Your task to perform on an android device: Open Reddit.com Image 0: 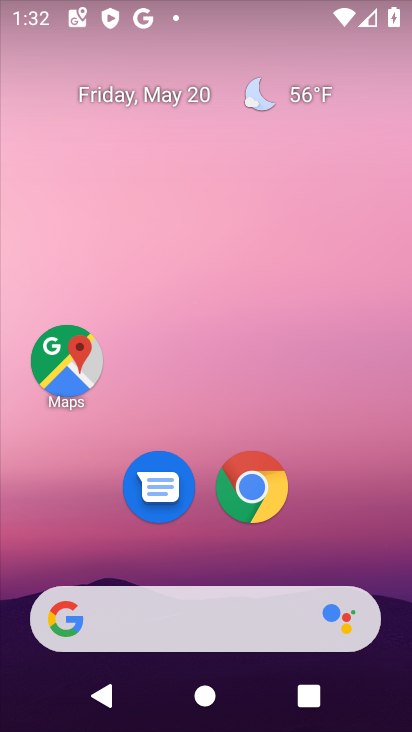
Step 0: drag from (220, 550) to (252, 16)
Your task to perform on an android device: Open Reddit.com Image 1: 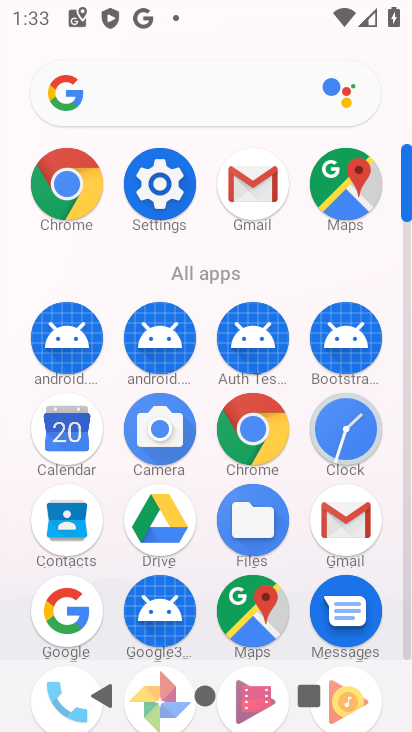
Step 1: click (249, 421)
Your task to perform on an android device: Open Reddit.com Image 2: 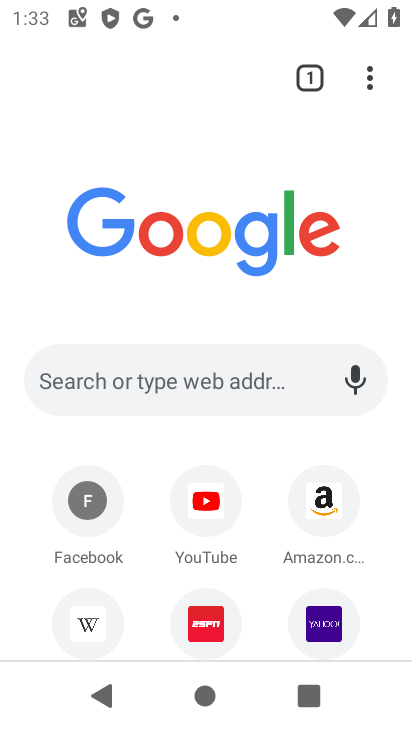
Step 2: click (150, 380)
Your task to perform on an android device: Open Reddit.com Image 3: 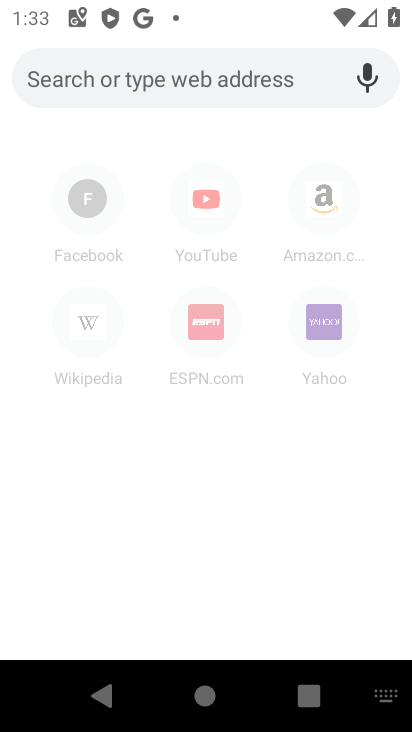
Step 3: type "reddit"
Your task to perform on an android device: Open Reddit.com Image 4: 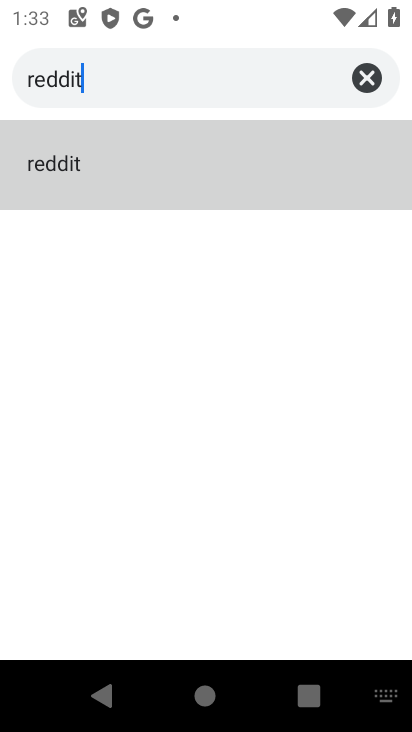
Step 4: type ""
Your task to perform on an android device: Open Reddit.com Image 5: 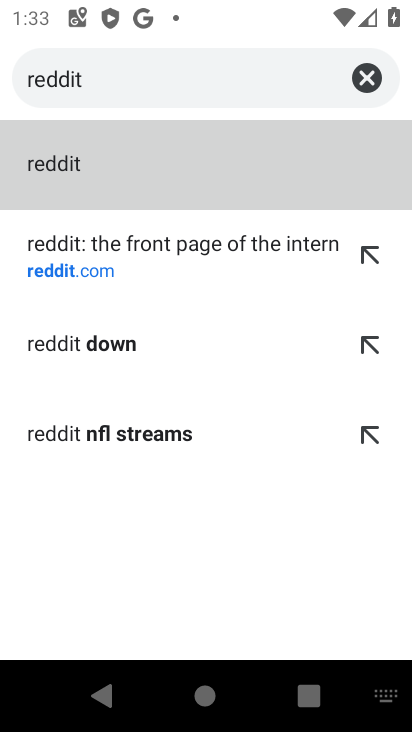
Step 5: click (139, 263)
Your task to perform on an android device: Open Reddit.com Image 6: 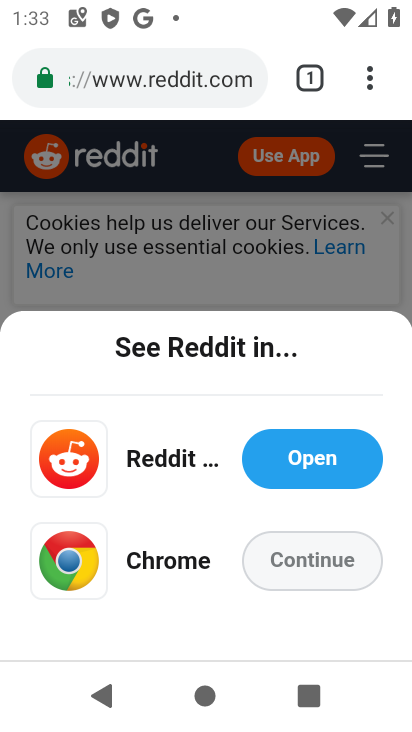
Step 6: click (319, 558)
Your task to perform on an android device: Open Reddit.com Image 7: 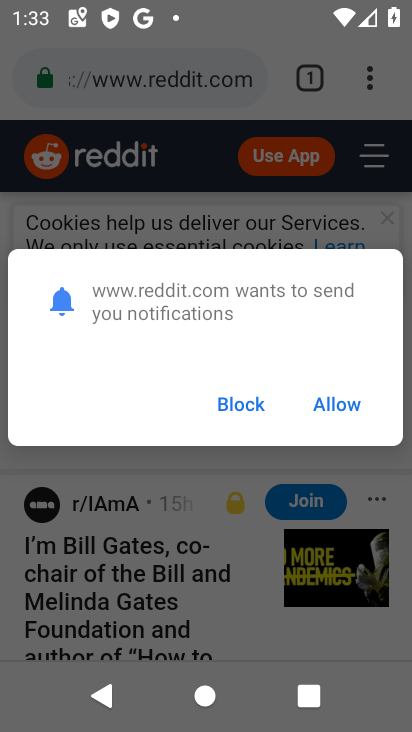
Step 7: click (244, 399)
Your task to perform on an android device: Open Reddit.com Image 8: 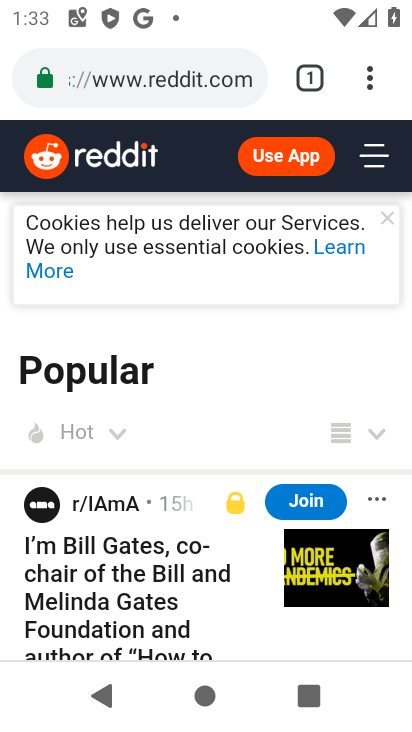
Step 8: task complete